Your task to perform on an android device: install app "Skype" Image 0: 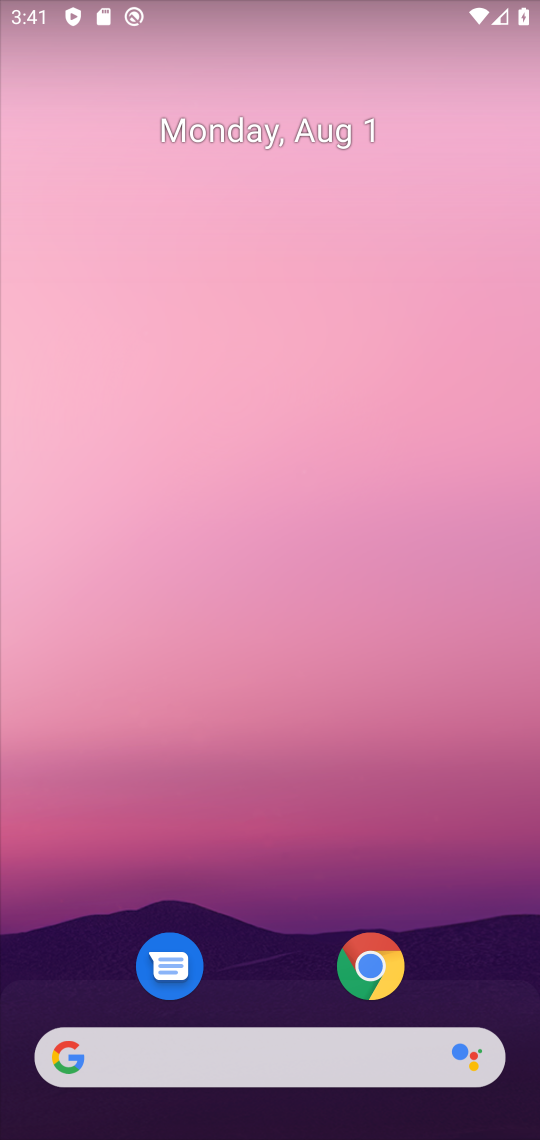
Step 0: drag from (284, 998) to (0, 290)
Your task to perform on an android device: install app "Skype" Image 1: 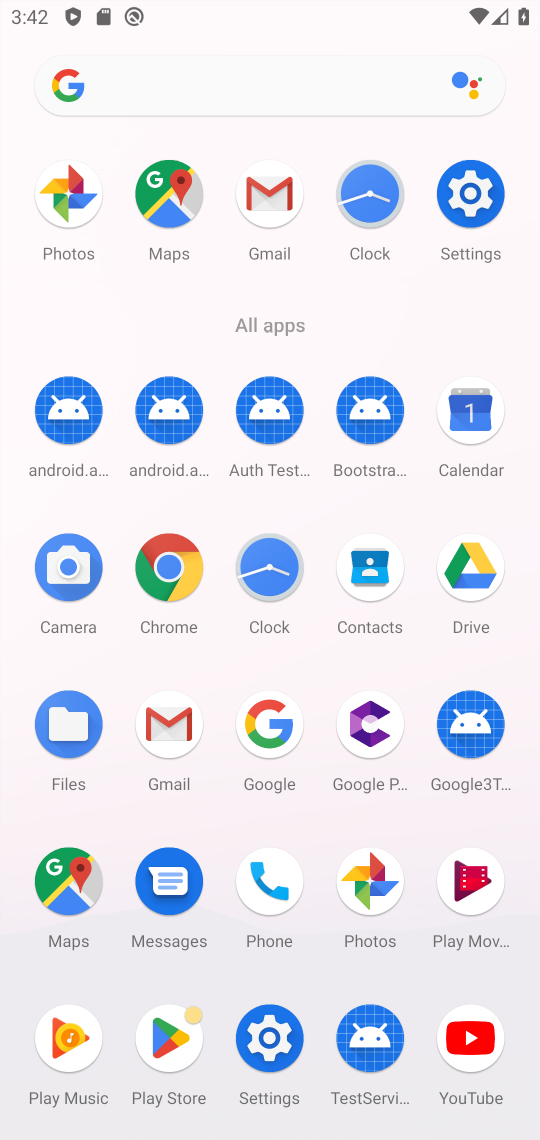
Step 1: click (159, 1050)
Your task to perform on an android device: install app "Skype" Image 2: 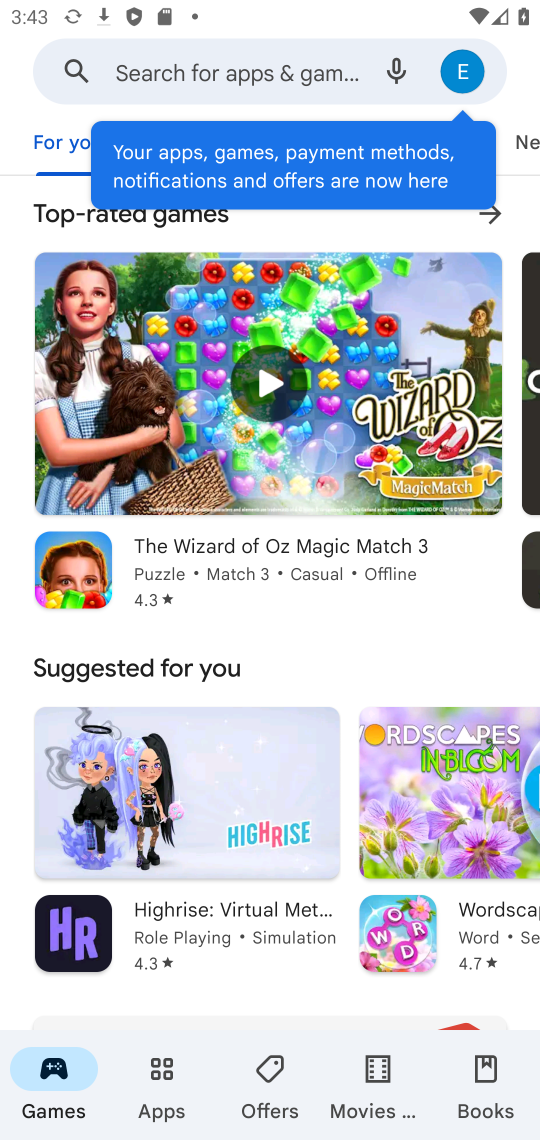
Step 2: click (140, 73)
Your task to perform on an android device: install app "Skype" Image 3: 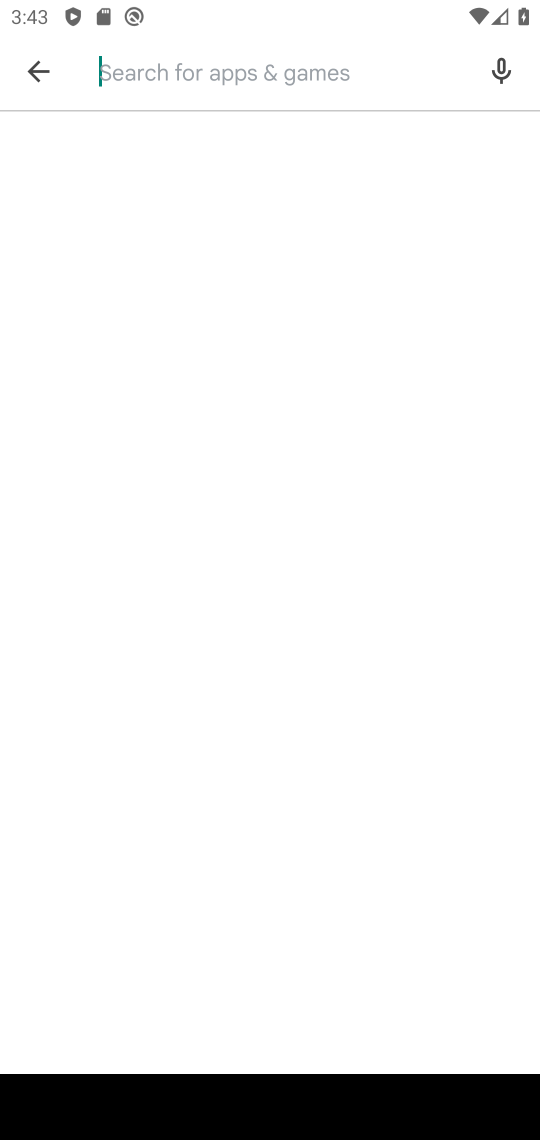
Step 3: type "Skype"
Your task to perform on an android device: install app "Skype" Image 4: 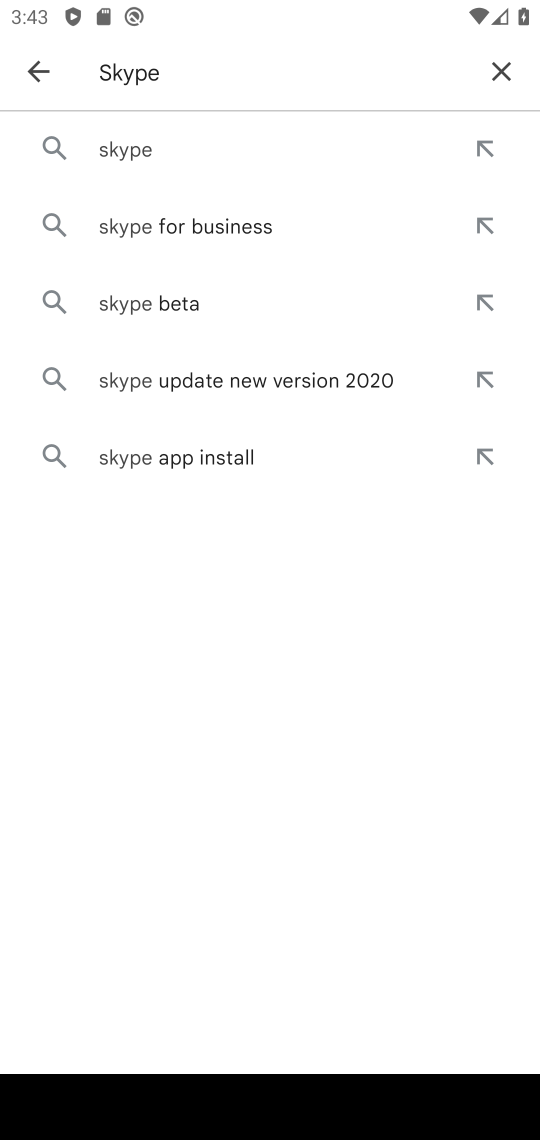
Step 4: click (115, 147)
Your task to perform on an android device: install app "Skype" Image 5: 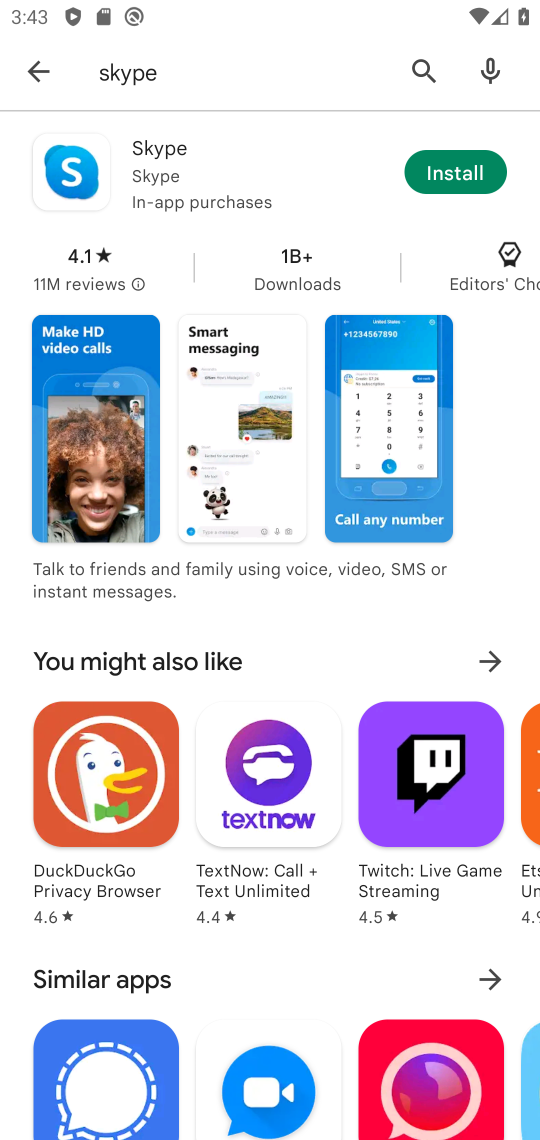
Step 5: click (433, 163)
Your task to perform on an android device: install app "Skype" Image 6: 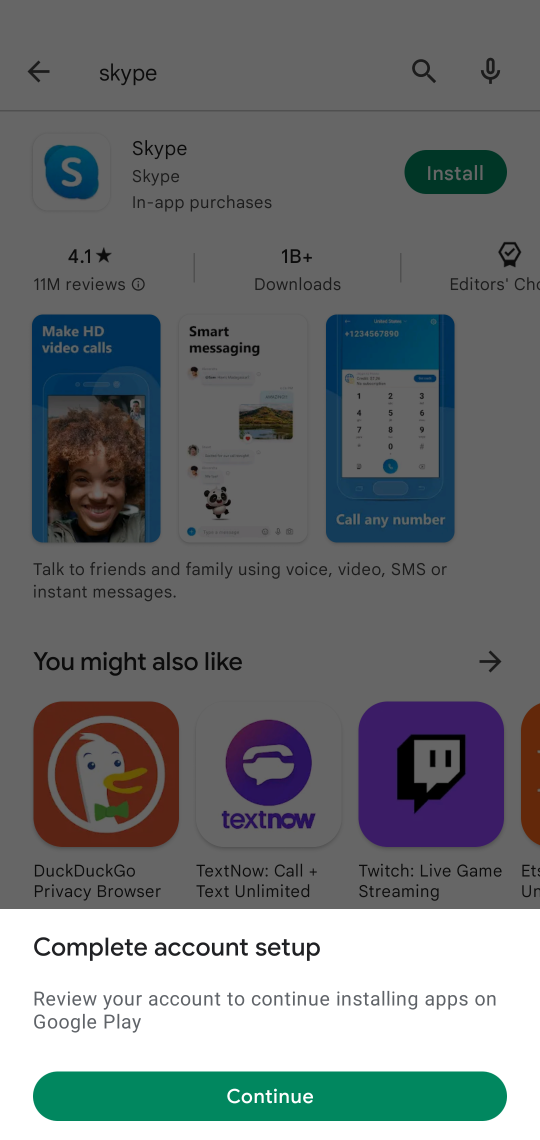
Step 6: click (292, 1104)
Your task to perform on an android device: install app "Skype" Image 7: 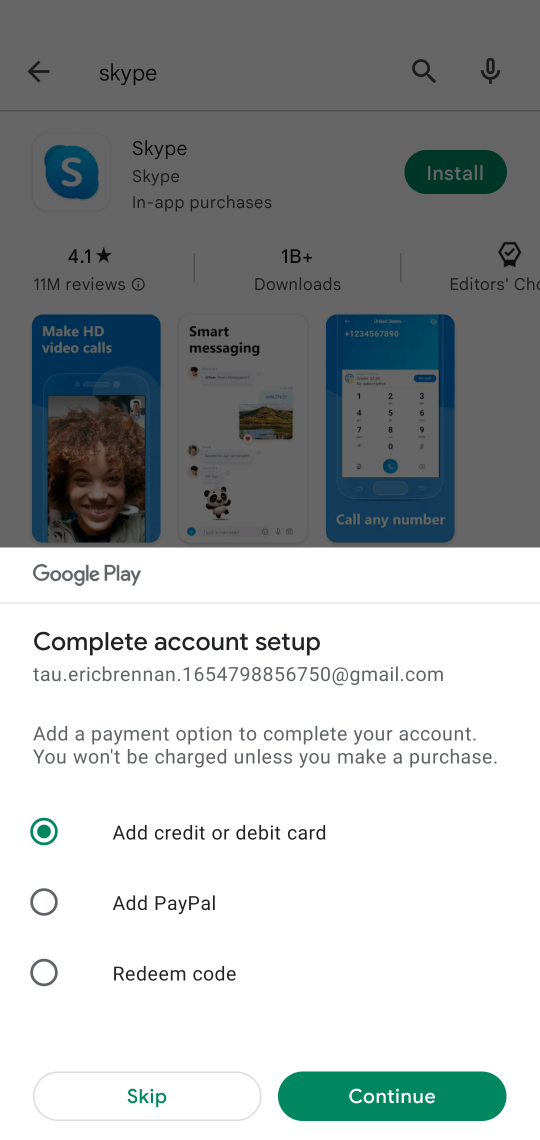
Step 7: click (136, 1101)
Your task to perform on an android device: install app "Skype" Image 8: 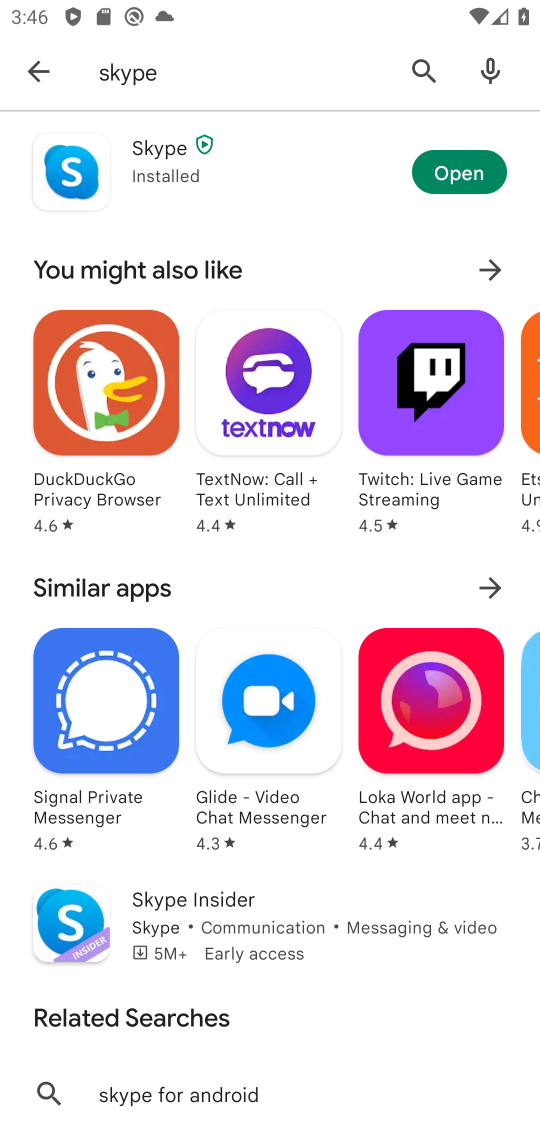
Step 8: click (461, 149)
Your task to perform on an android device: install app "Skype" Image 9: 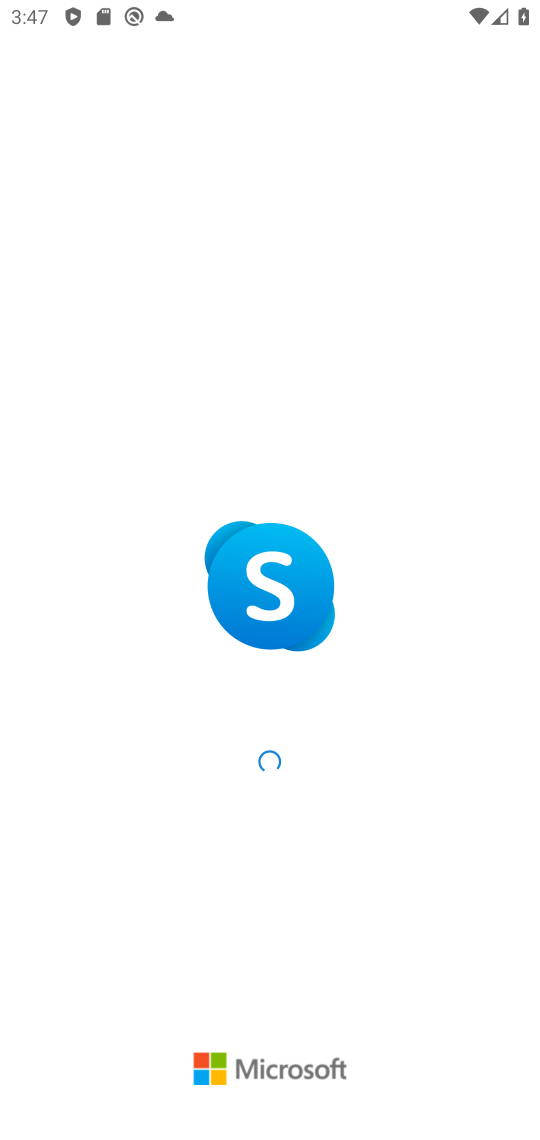
Step 9: task complete